Your task to perform on an android device: turn off picture-in-picture Image 0: 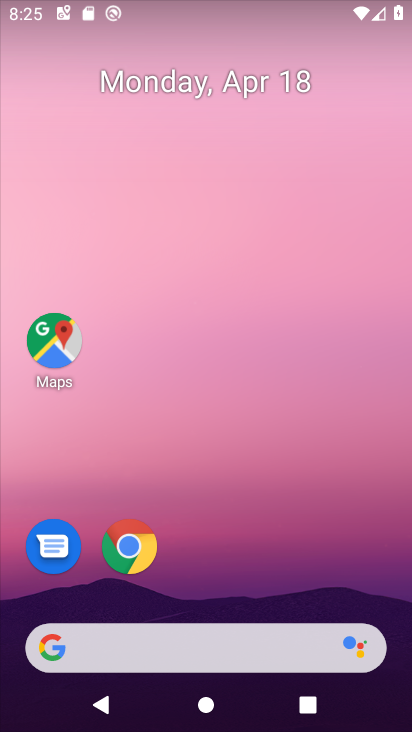
Step 0: drag from (376, 568) to (282, 124)
Your task to perform on an android device: turn off picture-in-picture Image 1: 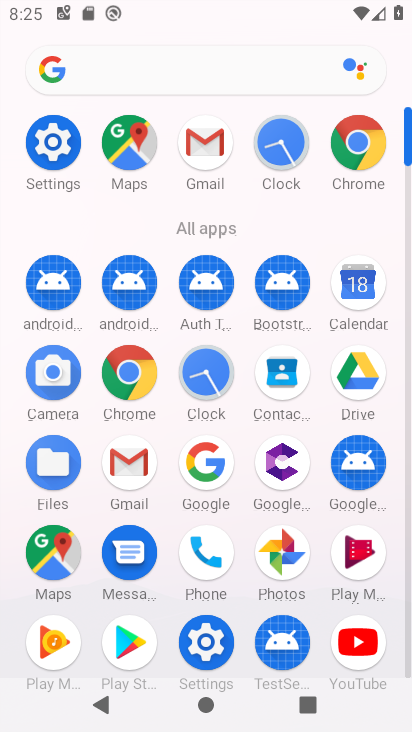
Step 1: click (380, 163)
Your task to perform on an android device: turn off picture-in-picture Image 2: 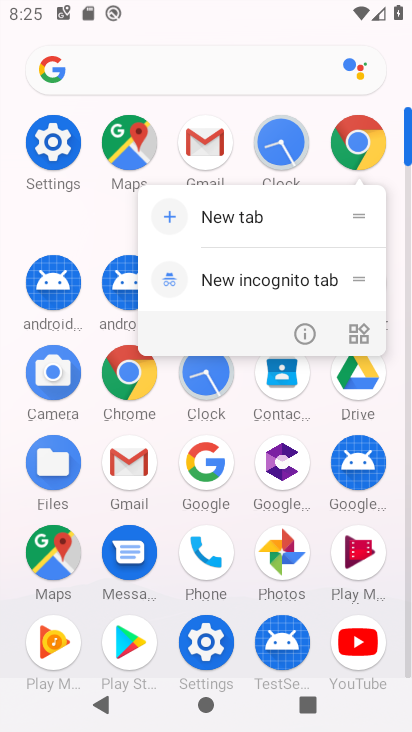
Step 2: click (308, 340)
Your task to perform on an android device: turn off picture-in-picture Image 3: 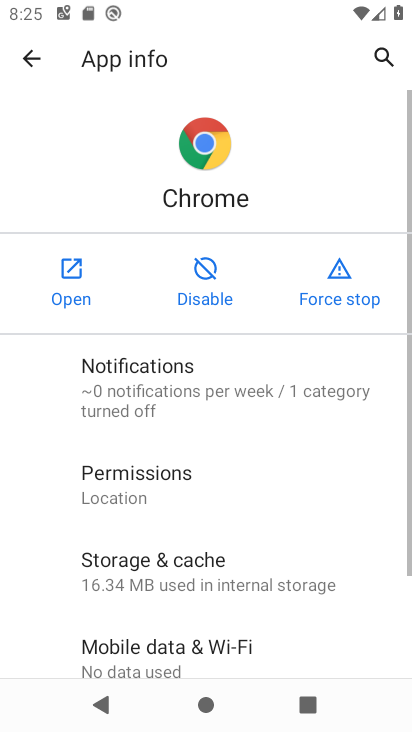
Step 3: drag from (337, 619) to (282, 112)
Your task to perform on an android device: turn off picture-in-picture Image 4: 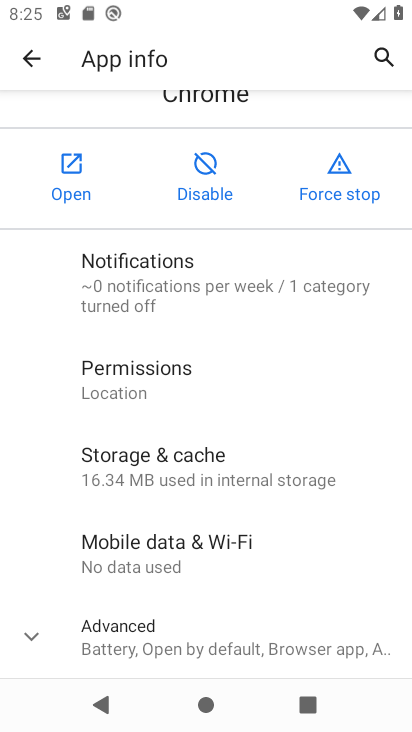
Step 4: click (289, 642)
Your task to perform on an android device: turn off picture-in-picture Image 5: 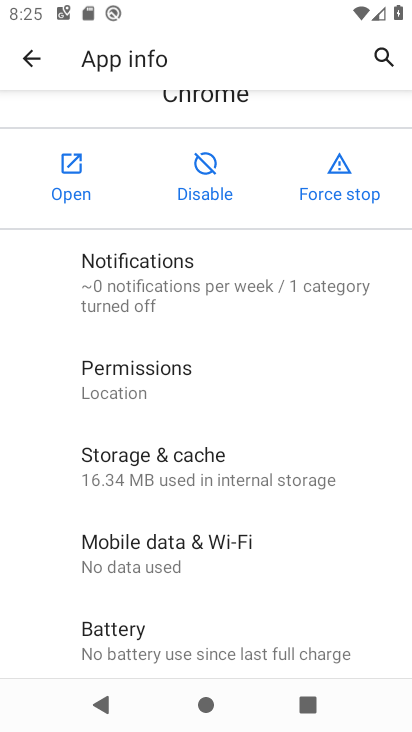
Step 5: drag from (275, 622) to (200, 259)
Your task to perform on an android device: turn off picture-in-picture Image 6: 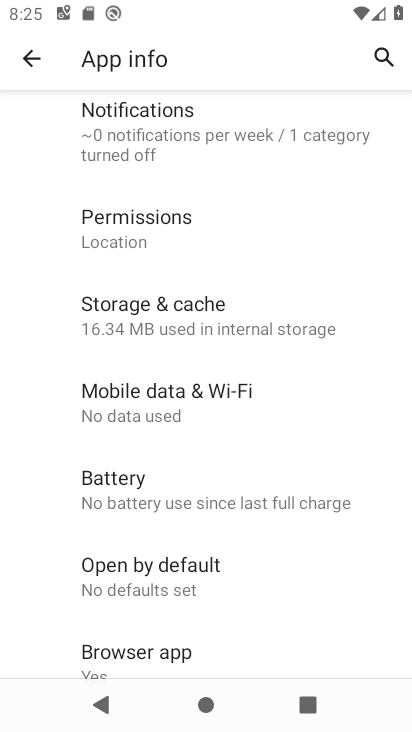
Step 6: drag from (277, 628) to (206, 234)
Your task to perform on an android device: turn off picture-in-picture Image 7: 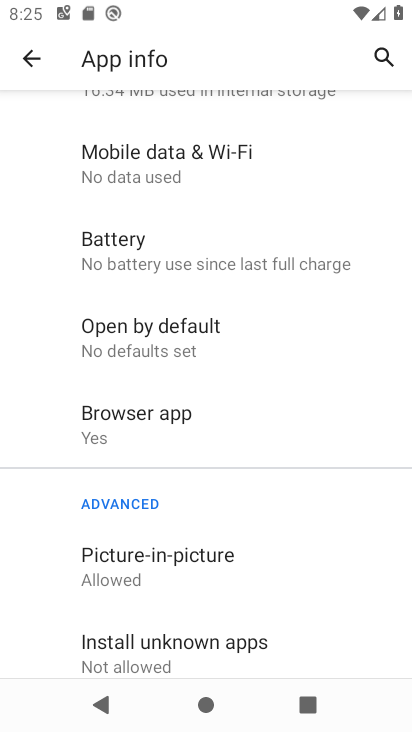
Step 7: click (289, 556)
Your task to perform on an android device: turn off picture-in-picture Image 8: 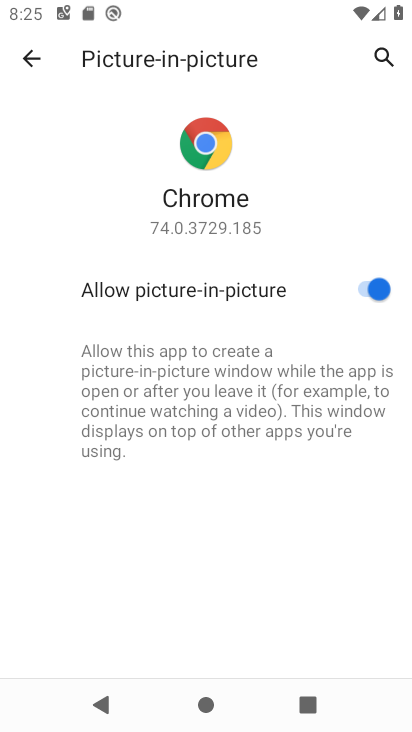
Step 8: click (365, 281)
Your task to perform on an android device: turn off picture-in-picture Image 9: 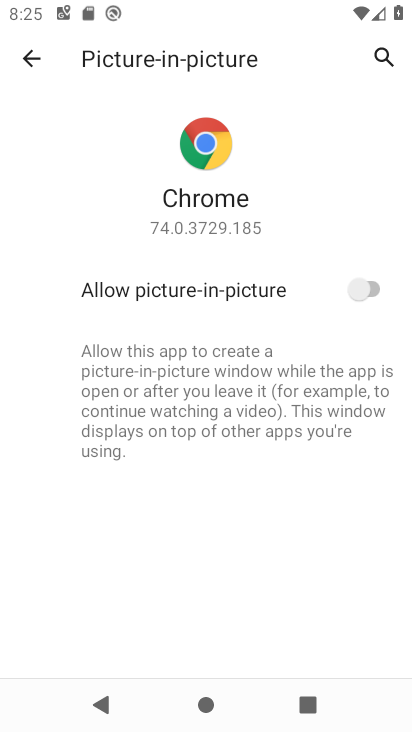
Step 9: task complete